Your task to perform on an android device: Is it going to rain today? Image 0: 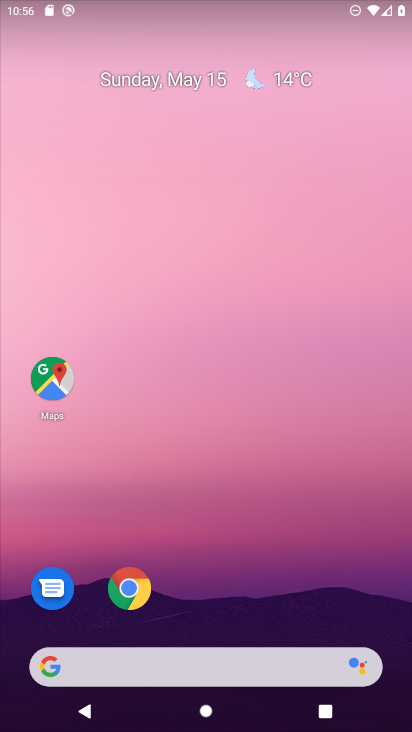
Step 0: click (295, 87)
Your task to perform on an android device: Is it going to rain today? Image 1: 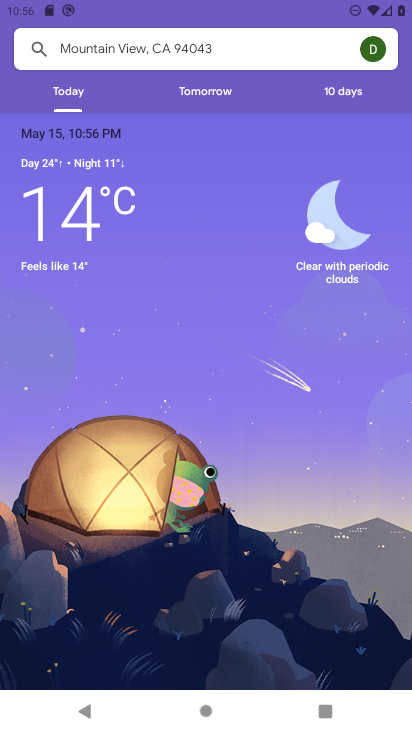
Step 1: task complete